Your task to perform on an android device: When is my next appointment? Image 0: 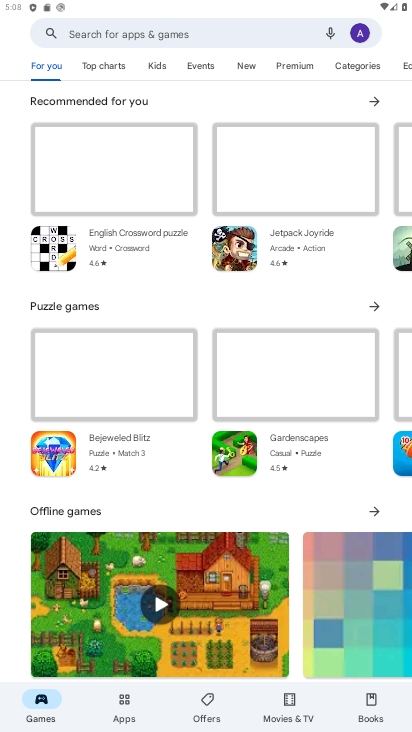
Step 0: press home button
Your task to perform on an android device: When is my next appointment? Image 1: 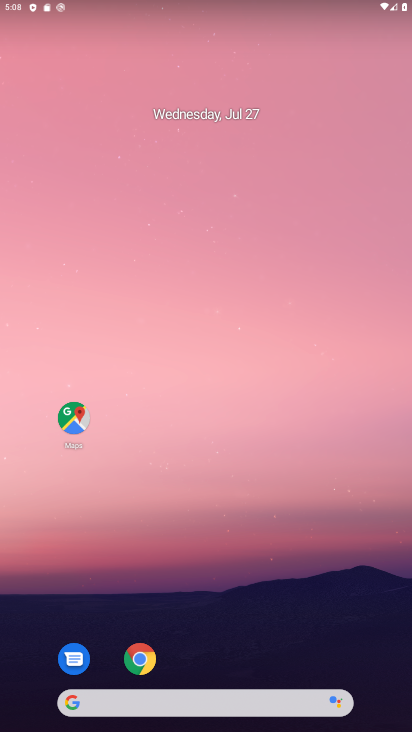
Step 1: drag from (269, 615) to (267, 104)
Your task to perform on an android device: When is my next appointment? Image 2: 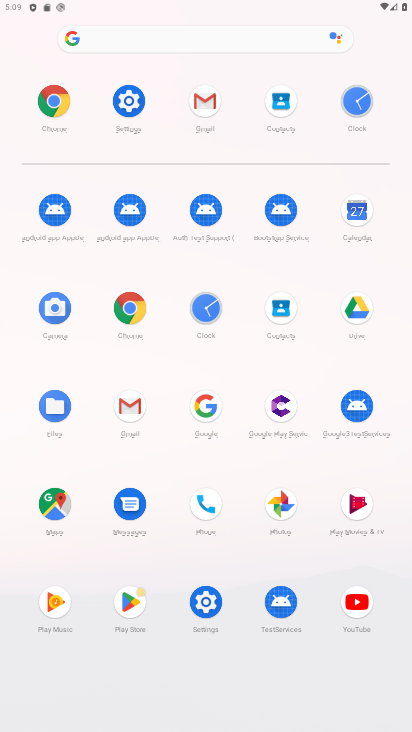
Step 2: click (349, 209)
Your task to perform on an android device: When is my next appointment? Image 3: 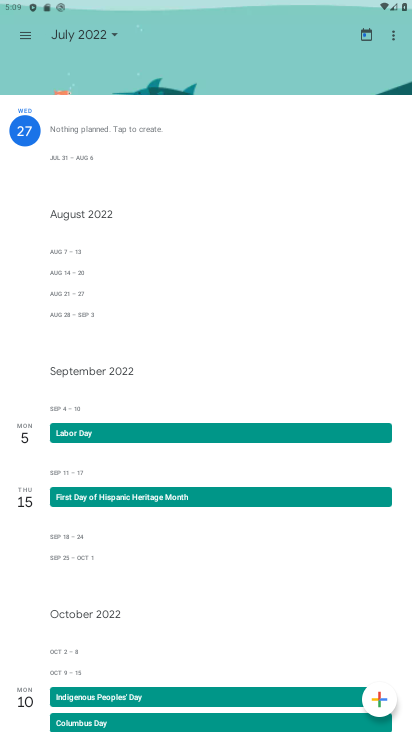
Step 3: click (98, 36)
Your task to perform on an android device: When is my next appointment? Image 4: 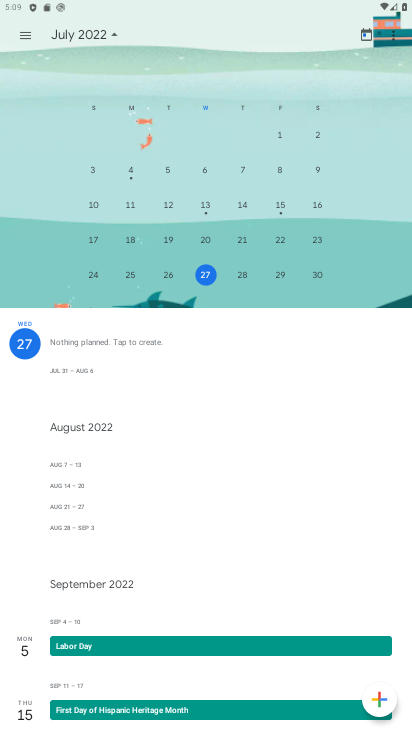
Step 4: click (194, 263)
Your task to perform on an android device: When is my next appointment? Image 5: 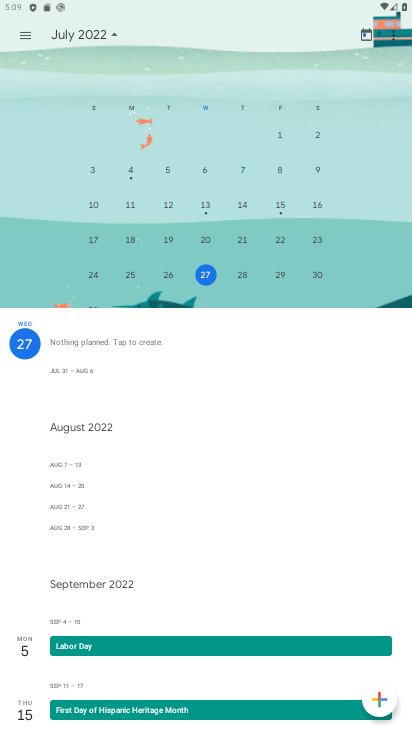
Step 5: task complete